Your task to perform on an android device: open a bookmark in the chrome app Image 0: 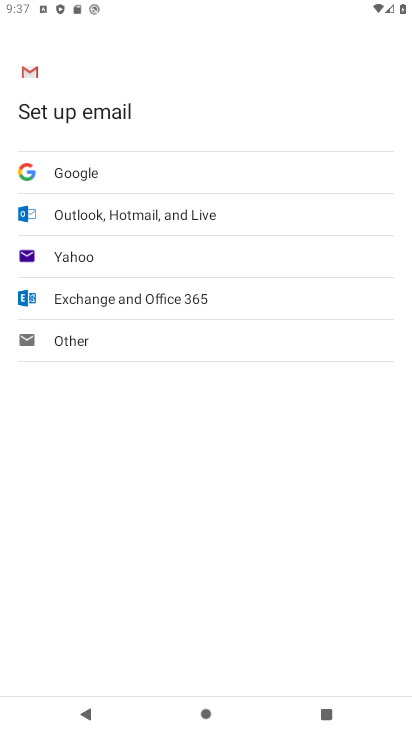
Step 0: press home button
Your task to perform on an android device: open a bookmark in the chrome app Image 1: 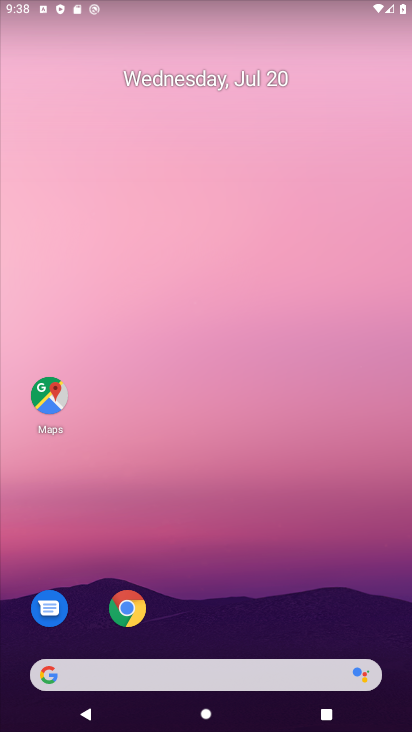
Step 1: drag from (221, 610) to (179, 114)
Your task to perform on an android device: open a bookmark in the chrome app Image 2: 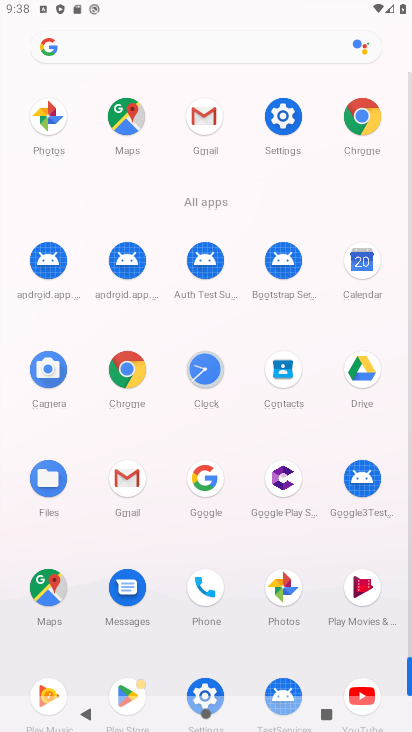
Step 2: click (118, 390)
Your task to perform on an android device: open a bookmark in the chrome app Image 3: 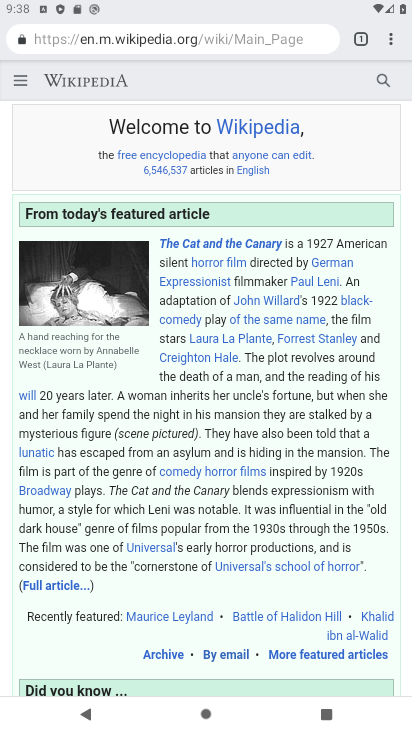
Step 3: click (393, 43)
Your task to perform on an android device: open a bookmark in the chrome app Image 4: 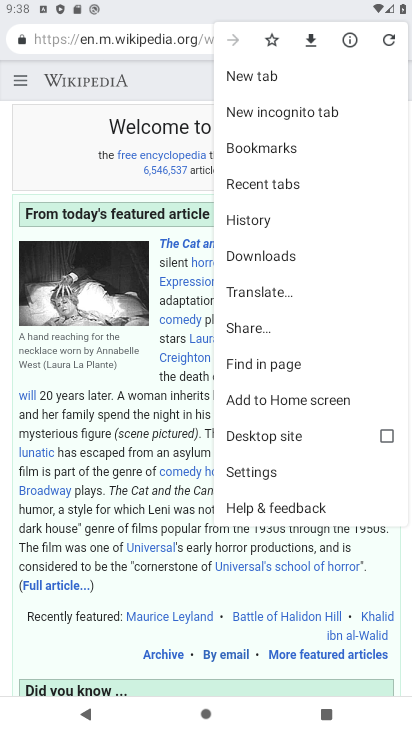
Step 4: click (263, 160)
Your task to perform on an android device: open a bookmark in the chrome app Image 5: 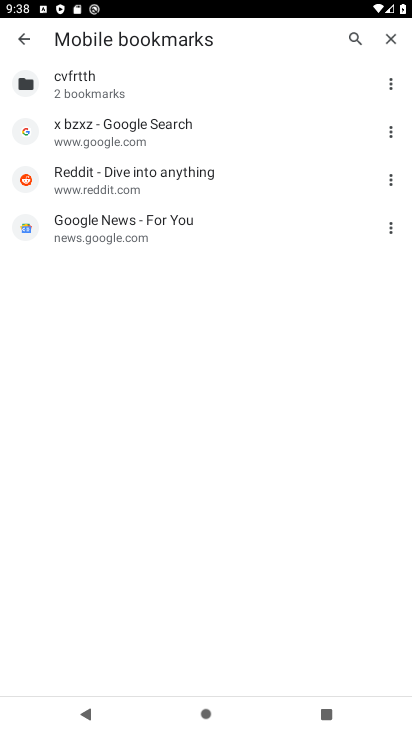
Step 5: click (52, 232)
Your task to perform on an android device: open a bookmark in the chrome app Image 6: 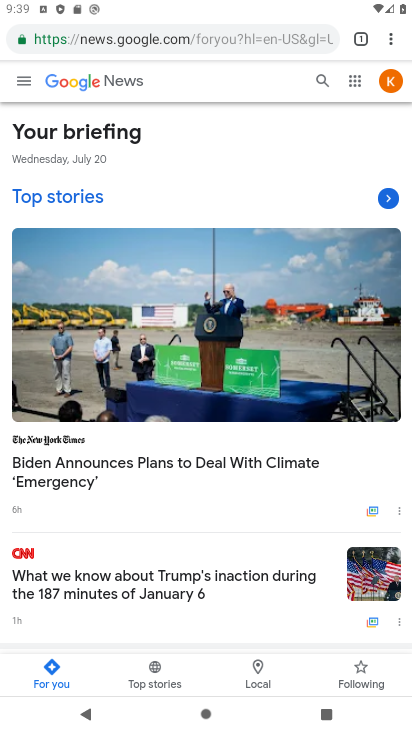
Step 6: task complete